Your task to perform on an android device: Open sound settings Image 0: 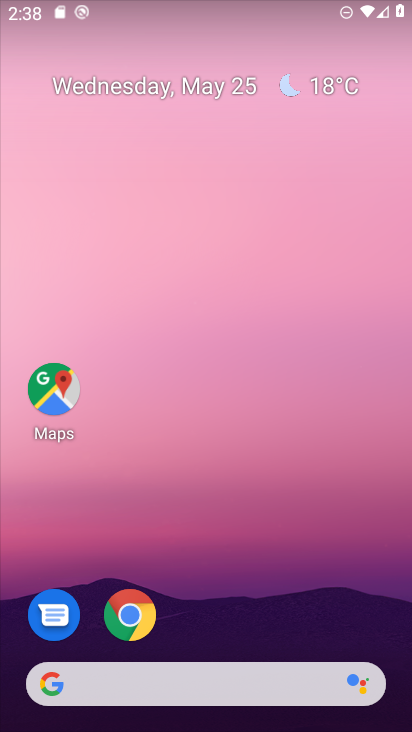
Step 0: drag from (328, 556) to (321, 50)
Your task to perform on an android device: Open sound settings Image 1: 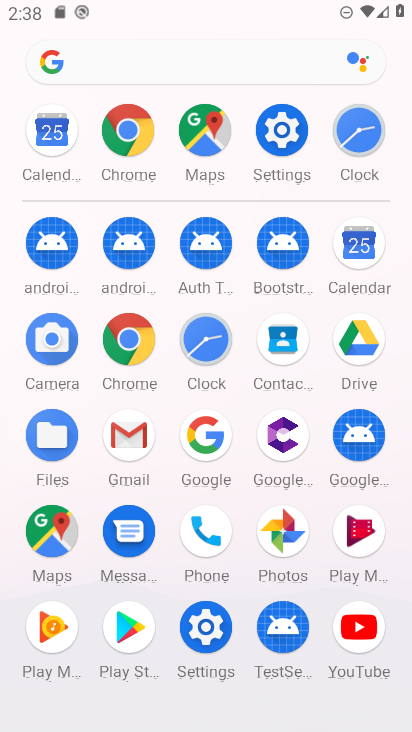
Step 1: click (285, 131)
Your task to perform on an android device: Open sound settings Image 2: 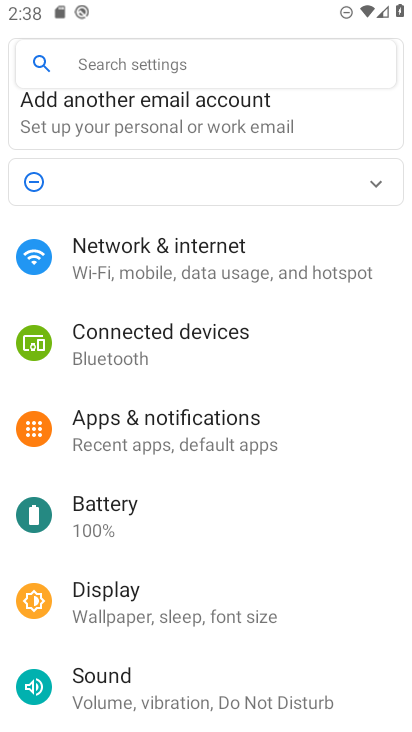
Step 2: click (162, 673)
Your task to perform on an android device: Open sound settings Image 3: 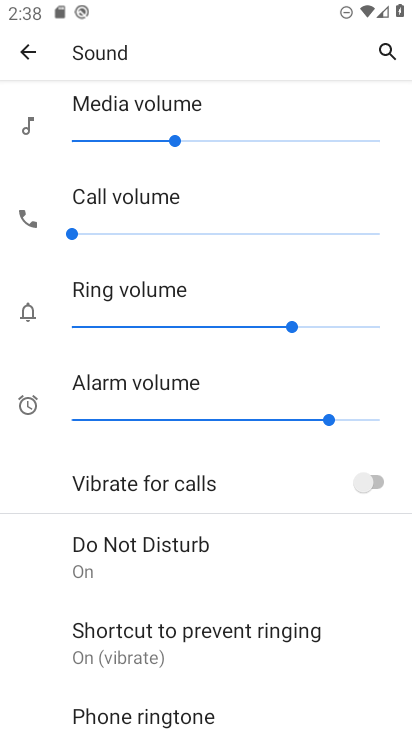
Step 3: task complete